Your task to perform on an android device: set an alarm Image 0: 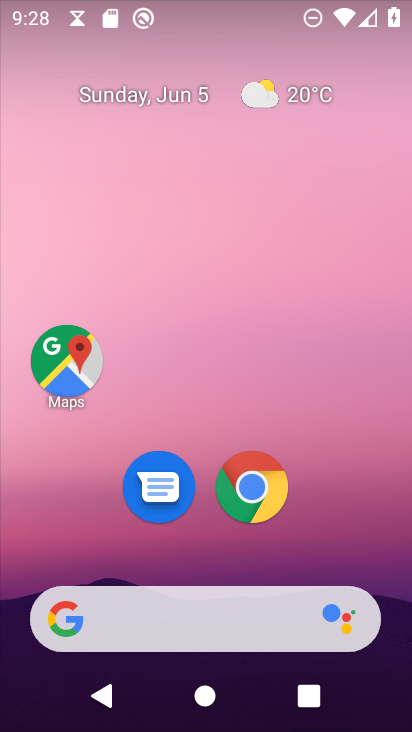
Step 0: drag from (289, 576) to (296, 197)
Your task to perform on an android device: set an alarm Image 1: 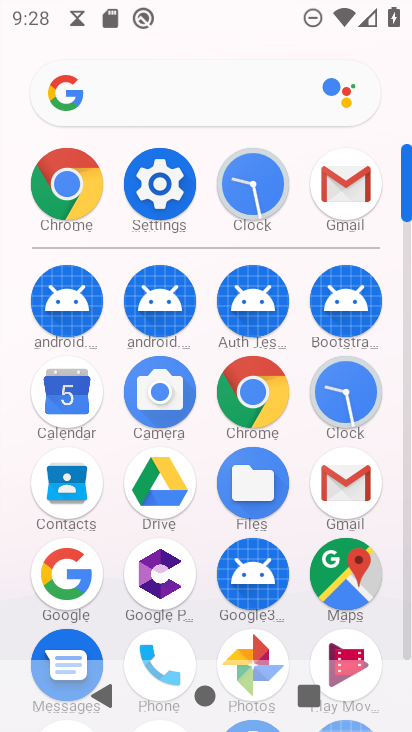
Step 1: click (328, 376)
Your task to perform on an android device: set an alarm Image 2: 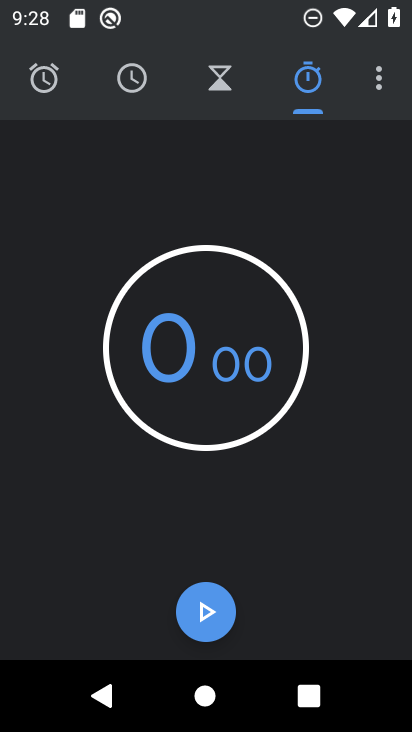
Step 2: click (45, 88)
Your task to perform on an android device: set an alarm Image 3: 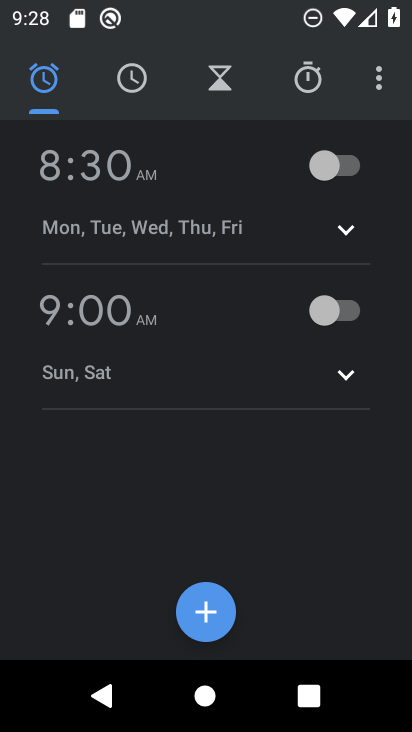
Step 3: click (357, 167)
Your task to perform on an android device: set an alarm Image 4: 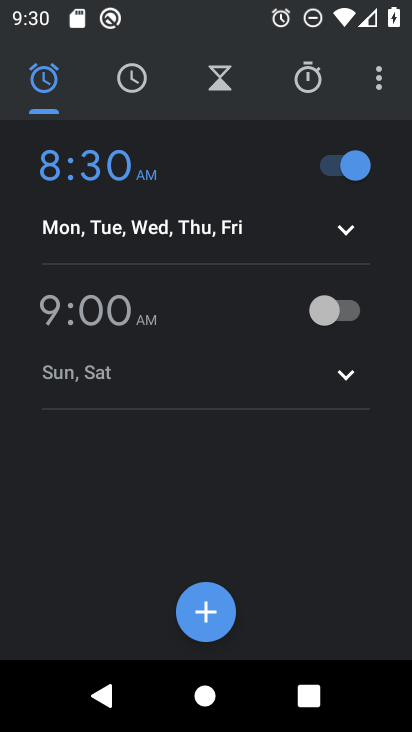
Step 4: task complete